Your task to perform on an android device: Open Wikipedia Image 0: 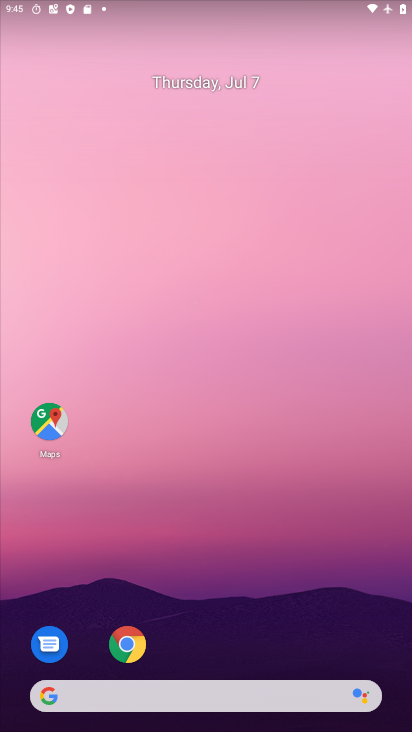
Step 0: drag from (333, 596) to (204, 71)
Your task to perform on an android device: Open Wikipedia Image 1: 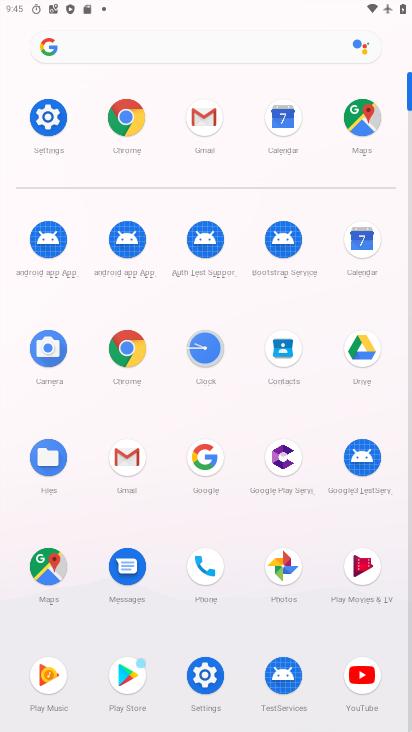
Step 1: click (130, 116)
Your task to perform on an android device: Open Wikipedia Image 2: 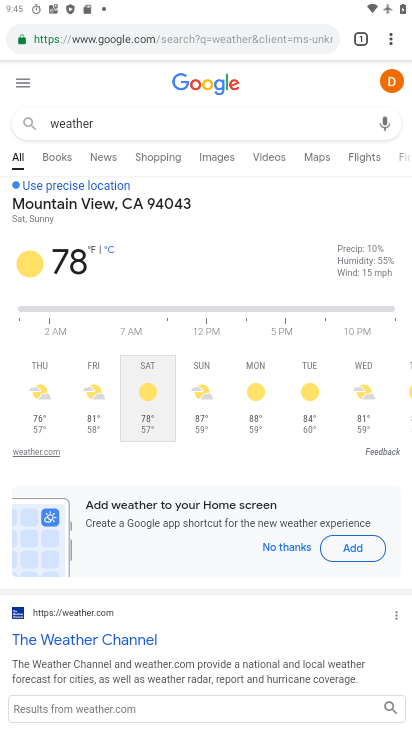
Step 2: click (173, 36)
Your task to perform on an android device: Open Wikipedia Image 3: 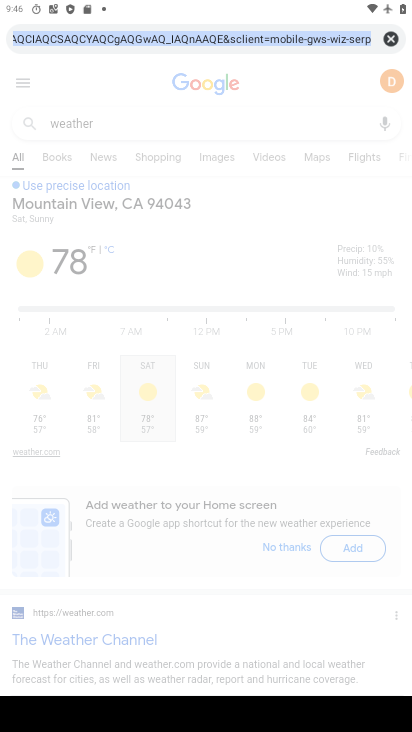
Step 3: type "wikipedia"
Your task to perform on an android device: Open Wikipedia Image 4: 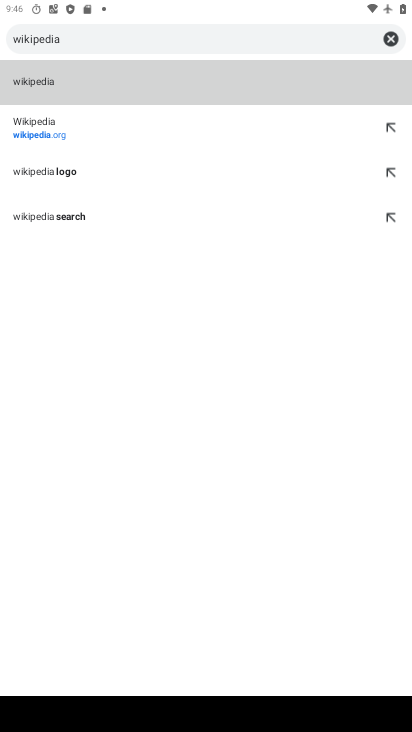
Step 4: click (41, 130)
Your task to perform on an android device: Open Wikipedia Image 5: 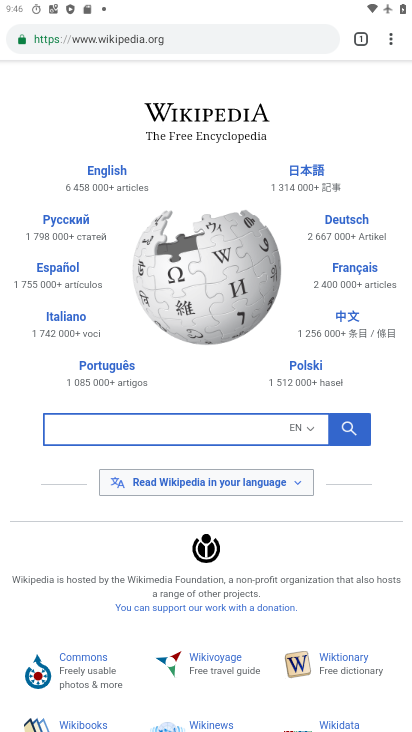
Step 5: task complete